Your task to perform on an android device: open device folders in google photos Image 0: 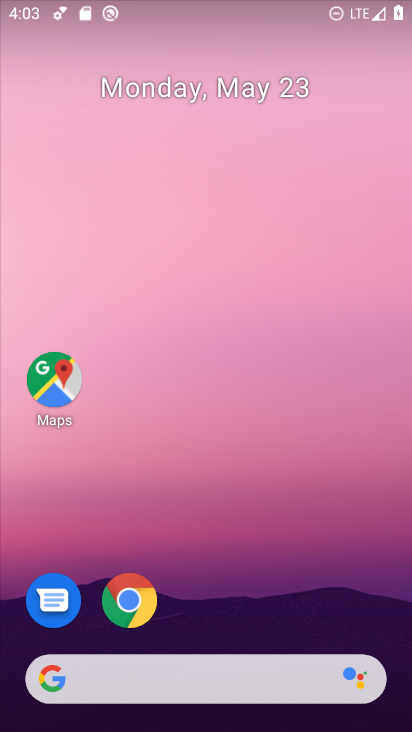
Step 0: drag from (289, 624) to (335, 0)
Your task to perform on an android device: open device folders in google photos Image 1: 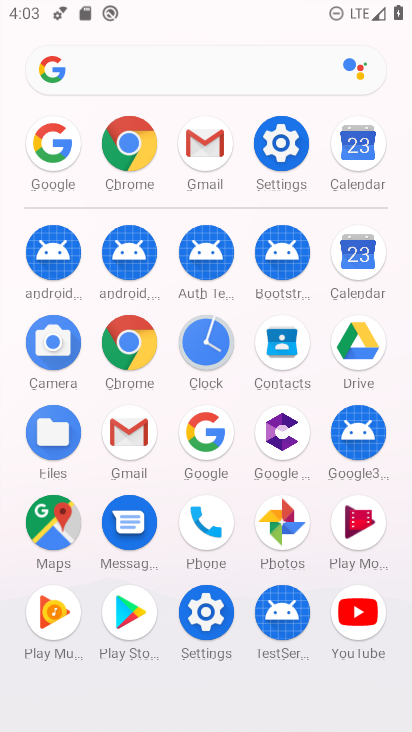
Step 1: click (279, 524)
Your task to perform on an android device: open device folders in google photos Image 2: 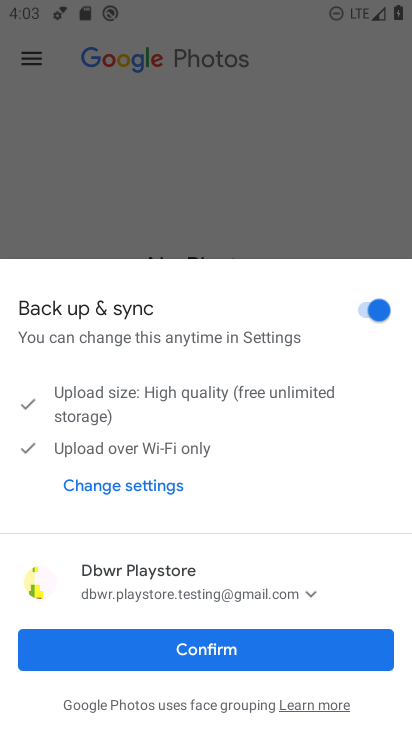
Step 2: click (208, 647)
Your task to perform on an android device: open device folders in google photos Image 3: 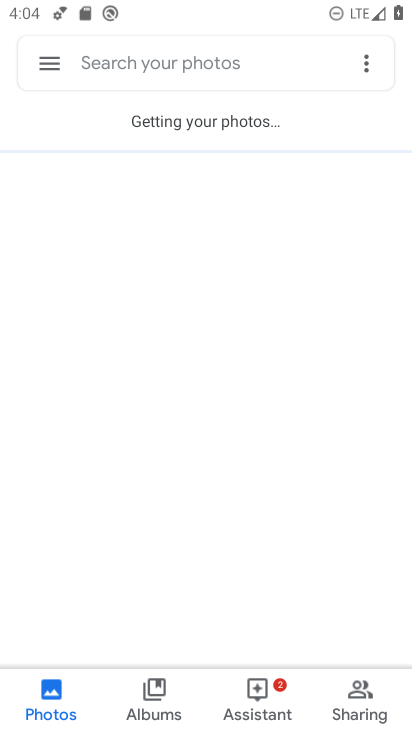
Step 3: click (50, 62)
Your task to perform on an android device: open device folders in google photos Image 4: 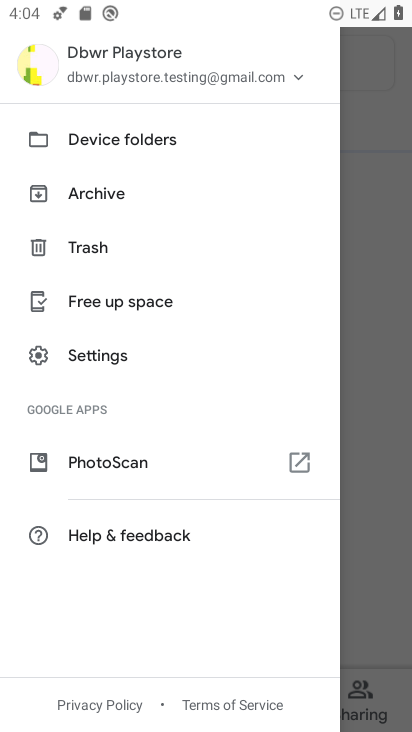
Step 4: click (86, 139)
Your task to perform on an android device: open device folders in google photos Image 5: 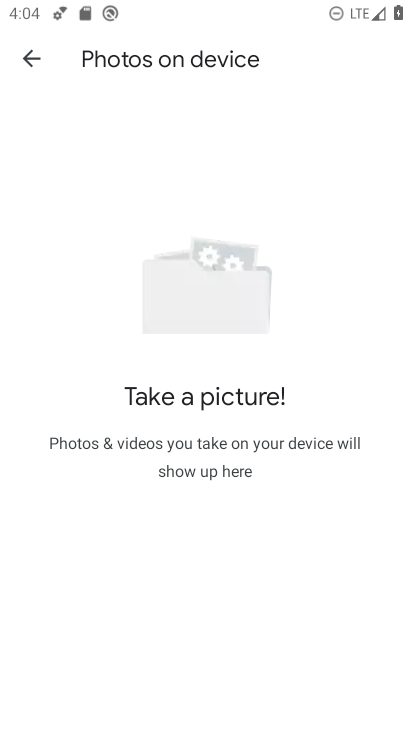
Step 5: task complete